Your task to perform on an android device: change the clock style Image 0: 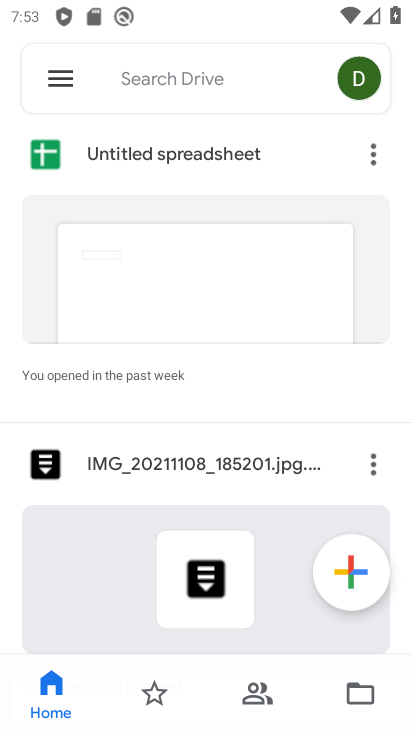
Step 0: press home button
Your task to perform on an android device: change the clock style Image 1: 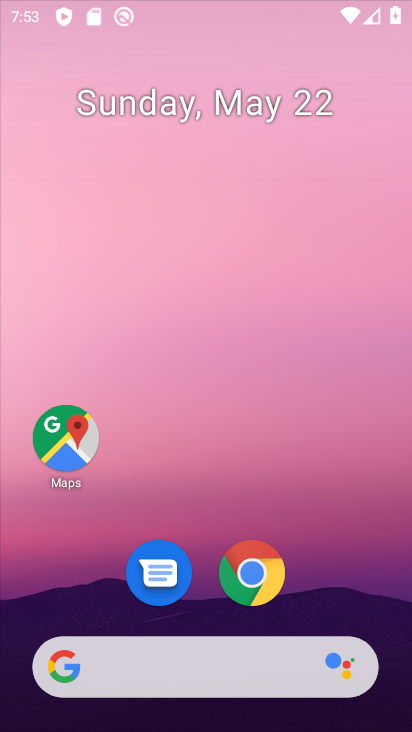
Step 1: drag from (201, 614) to (231, 64)
Your task to perform on an android device: change the clock style Image 2: 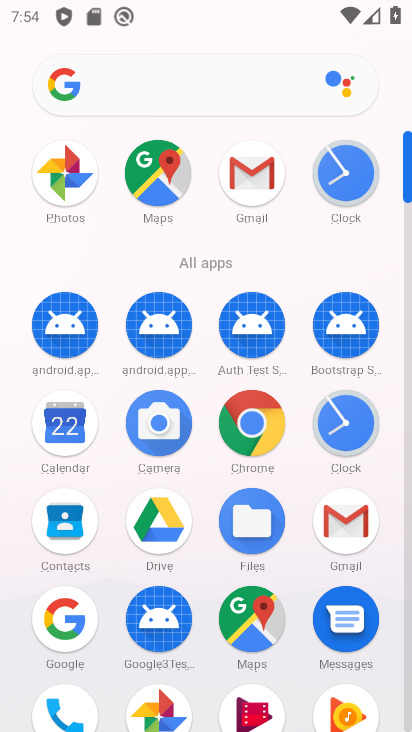
Step 2: click (353, 423)
Your task to perform on an android device: change the clock style Image 3: 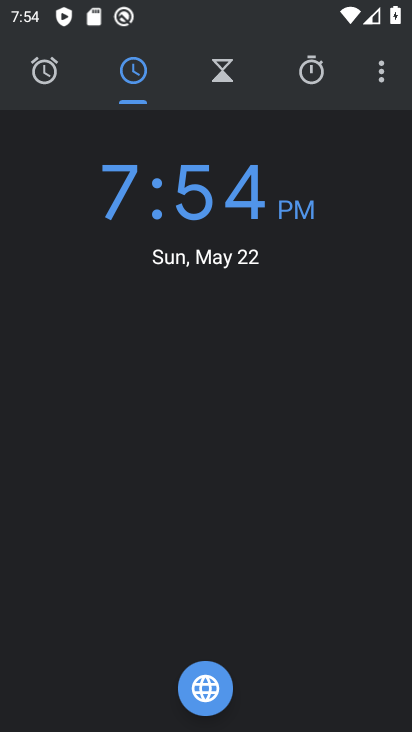
Step 3: click (371, 74)
Your task to perform on an android device: change the clock style Image 4: 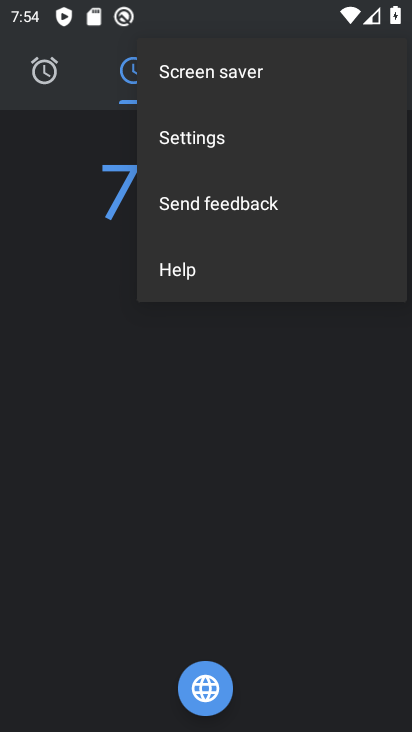
Step 4: click (226, 83)
Your task to perform on an android device: change the clock style Image 5: 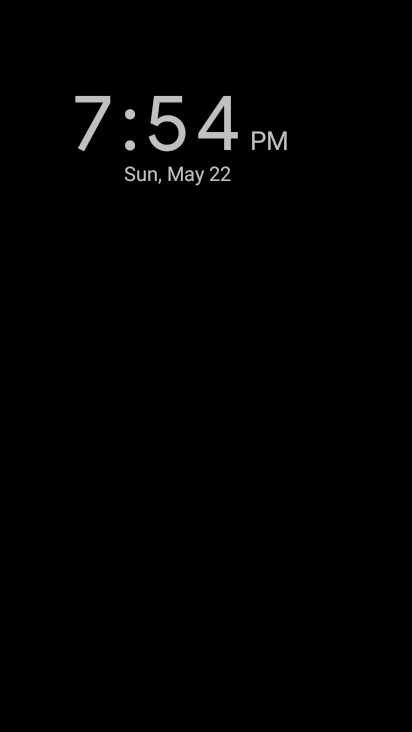
Step 5: drag from (216, 412) to (232, 136)
Your task to perform on an android device: change the clock style Image 6: 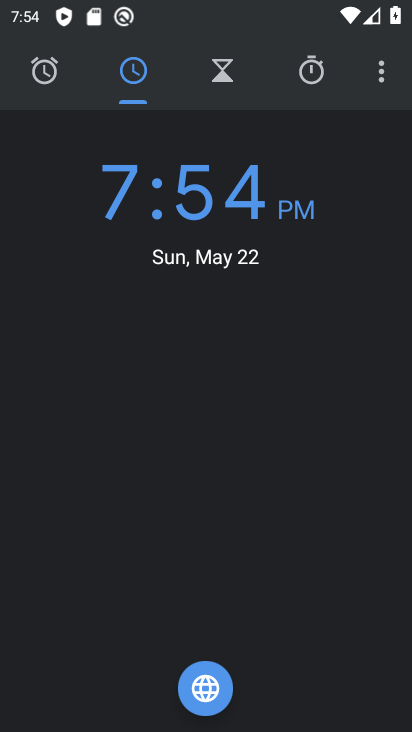
Step 6: click (378, 68)
Your task to perform on an android device: change the clock style Image 7: 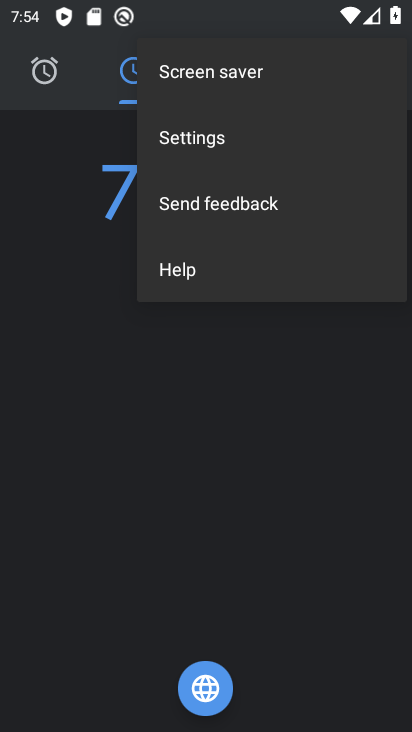
Step 7: click (186, 140)
Your task to perform on an android device: change the clock style Image 8: 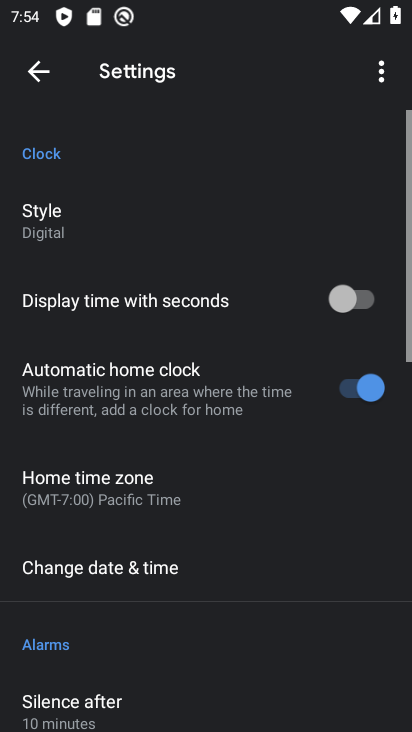
Step 8: drag from (229, 472) to (266, 76)
Your task to perform on an android device: change the clock style Image 9: 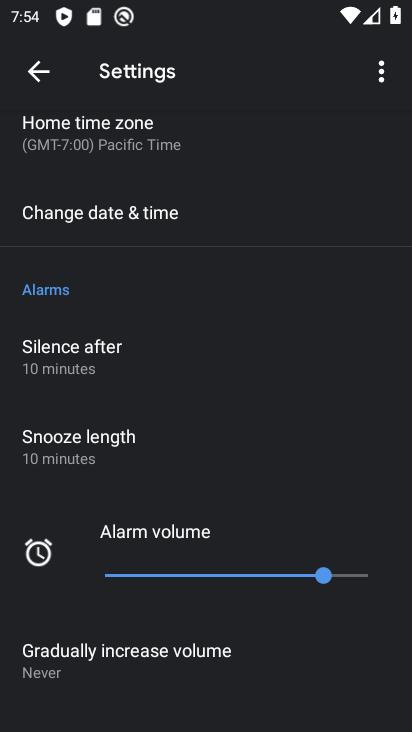
Step 9: drag from (135, 160) to (242, 725)
Your task to perform on an android device: change the clock style Image 10: 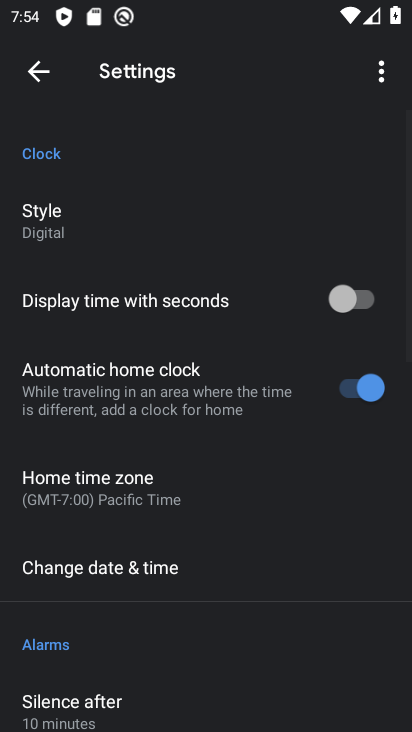
Step 10: click (89, 215)
Your task to perform on an android device: change the clock style Image 11: 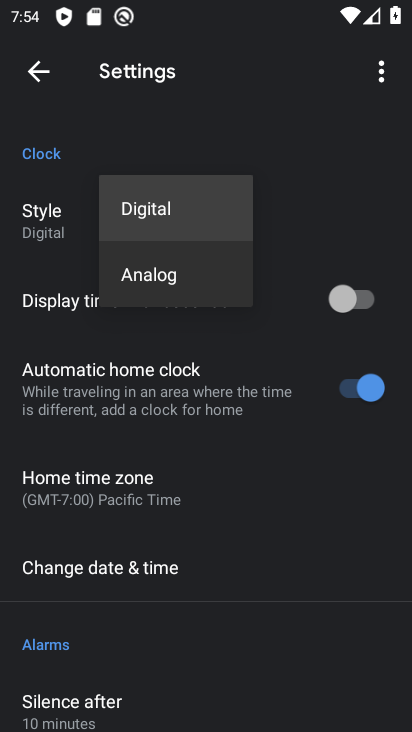
Step 11: click (183, 277)
Your task to perform on an android device: change the clock style Image 12: 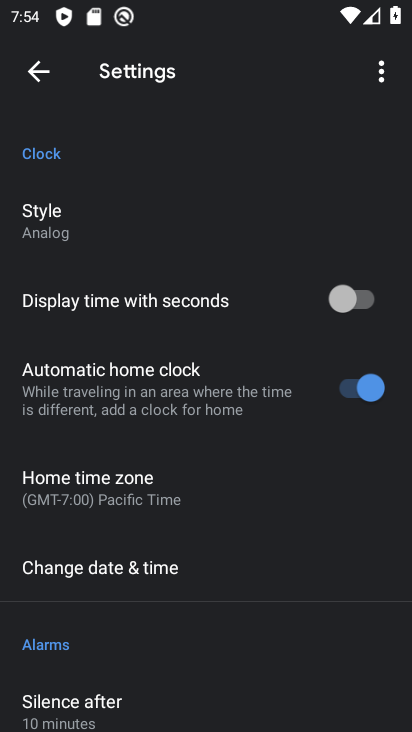
Step 12: click (6, 233)
Your task to perform on an android device: change the clock style Image 13: 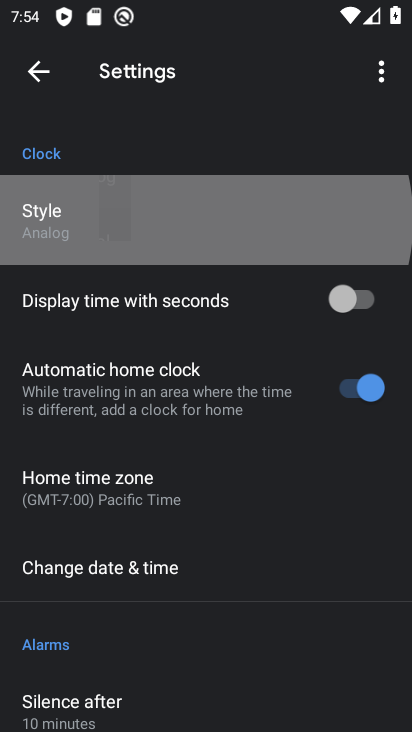
Step 13: click (30, 229)
Your task to perform on an android device: change the clock style Image 14: 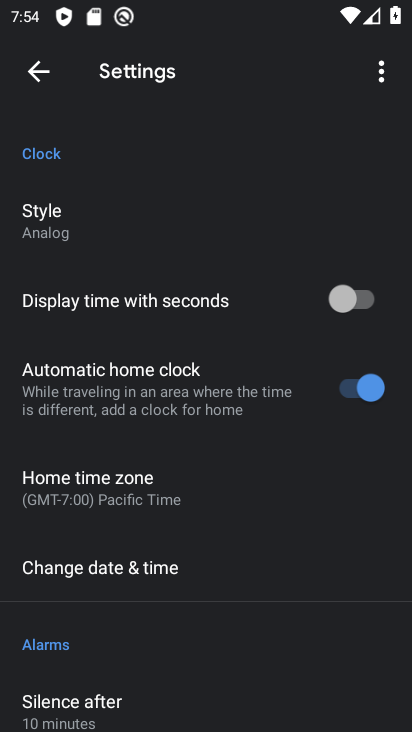
Step 14: task complete